Your task to perform on an android device: Do I have any events this weekend? Image 0: 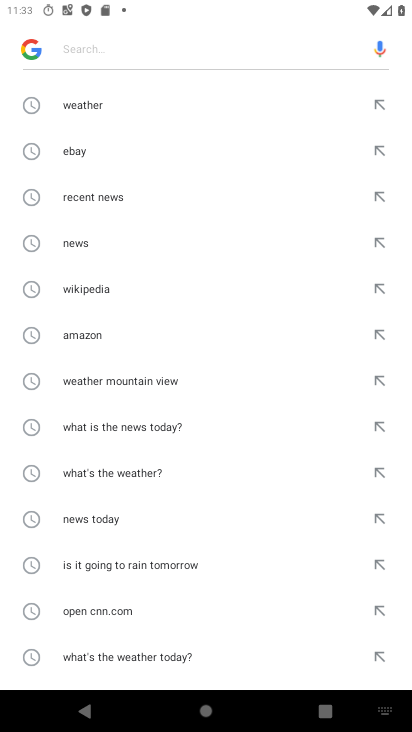
Step 0: press back button
Your task to perform on an android device: Do I have any events this weekend? Image 1: 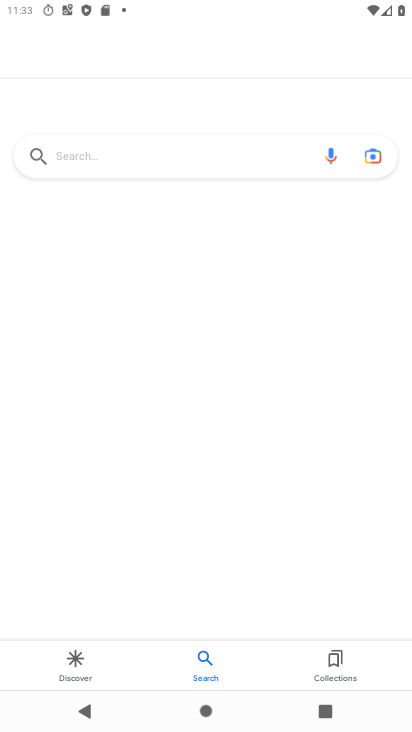
Step 1: press home button
Your task to perform on an android device: Do I have any events this weekend? Image 2: 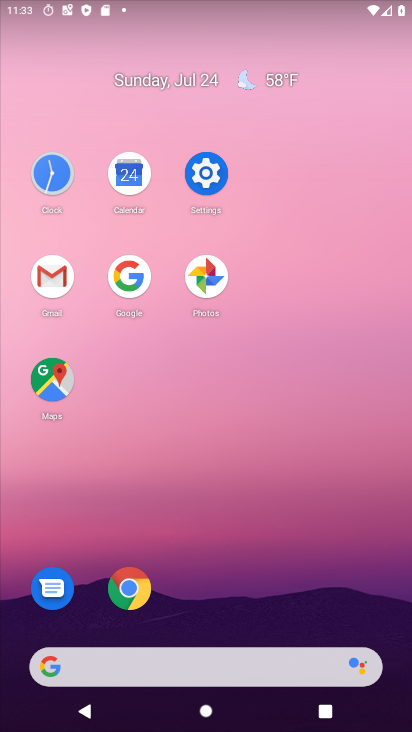
Step 2: click (129, 184)
Your task to perform on an android device: Do I have any events this weekend? Image 3: 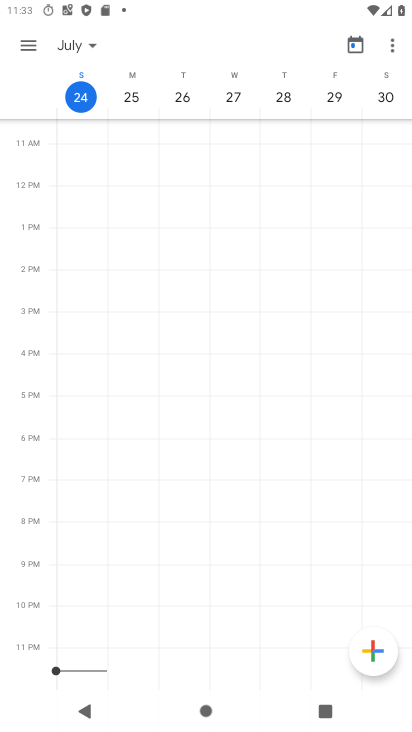
Step 3: click (382, 98)
Your task to perform on an android device: Do I have any events this weekend? Image 4: 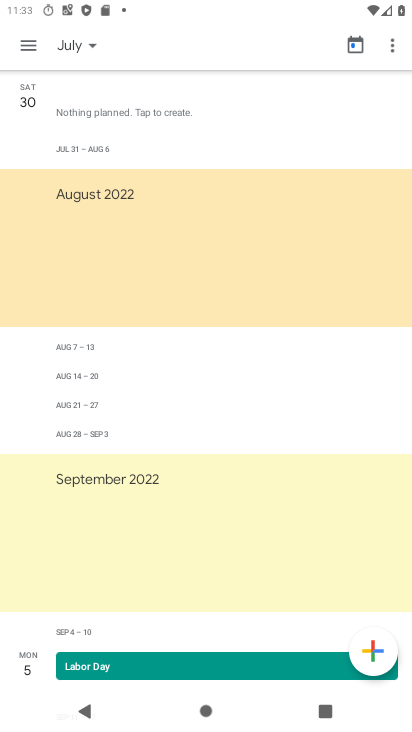
Step 4: task complete